Your task to perform on an android device: Open Reddit.com Image 0: 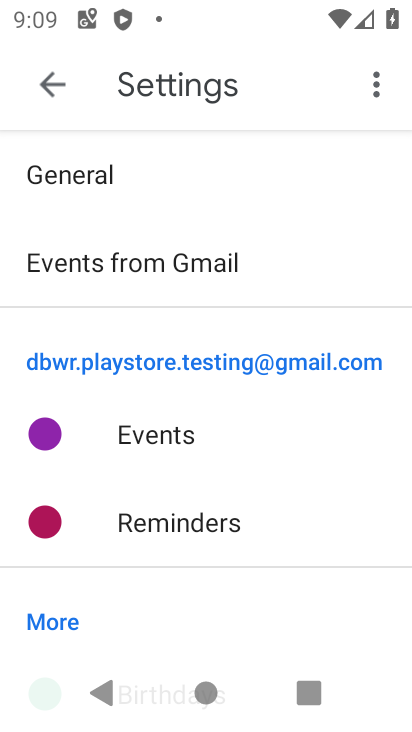
Step 0: press home button
Your task to perform on an android device: Open Reddit.com Image 1: 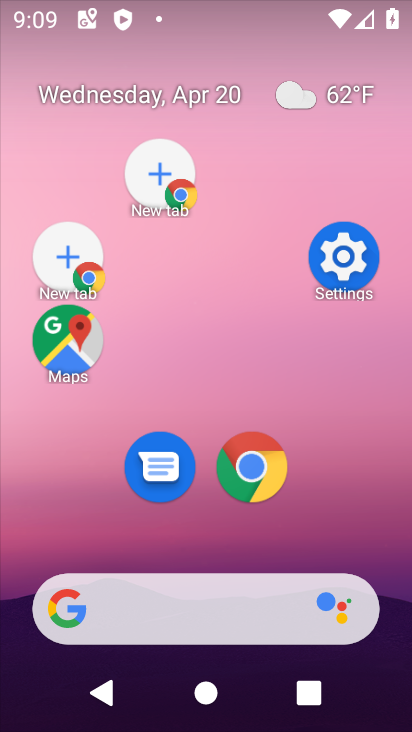
Step 1: drag from (264, 681) to (352, 25)
Your task to perform on an android device: Open Reddit.com Image 2: 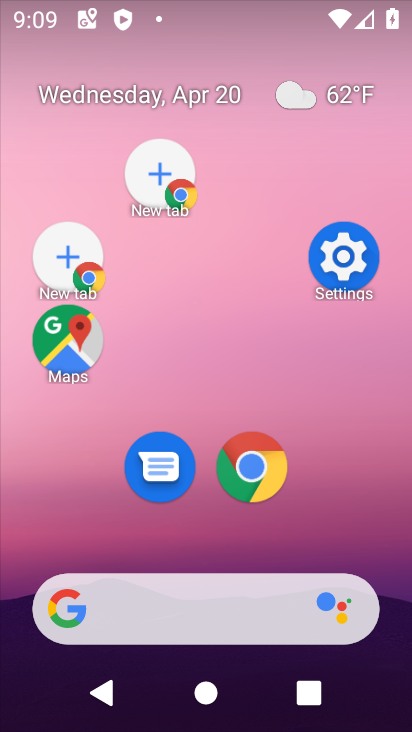
Step 2: drag from (311, 560) to (78, 27)
Your task to perform on an android device: Open Reddit.com Image 3: 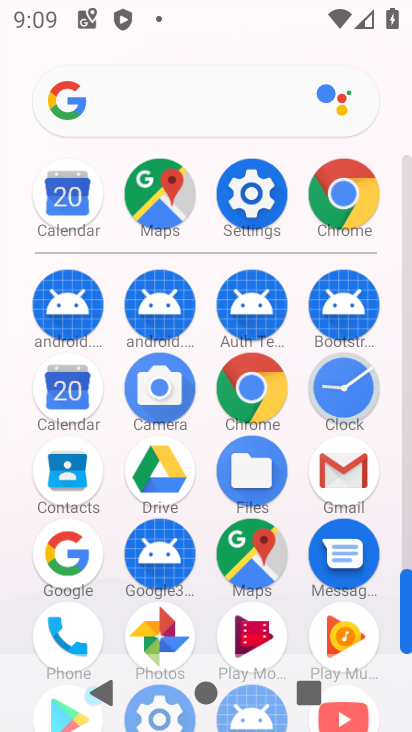
Step 3: click (332, 193)
Your task to perform on an android device: Open Reddit.com Image 4: 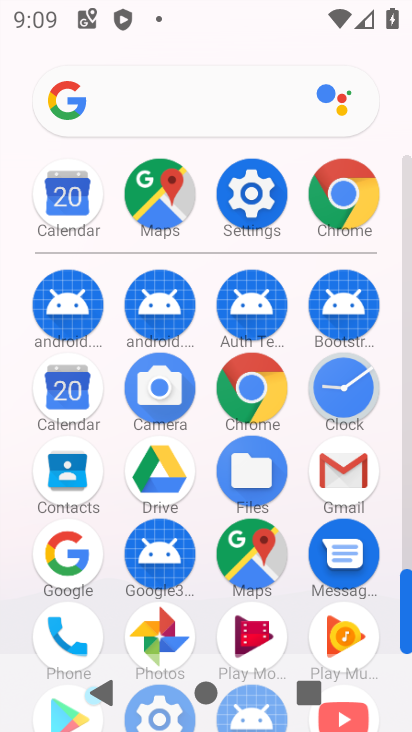
Step 4: click (332, 193)
Your task to perform on an android device: Open Reddit.com Image 5: 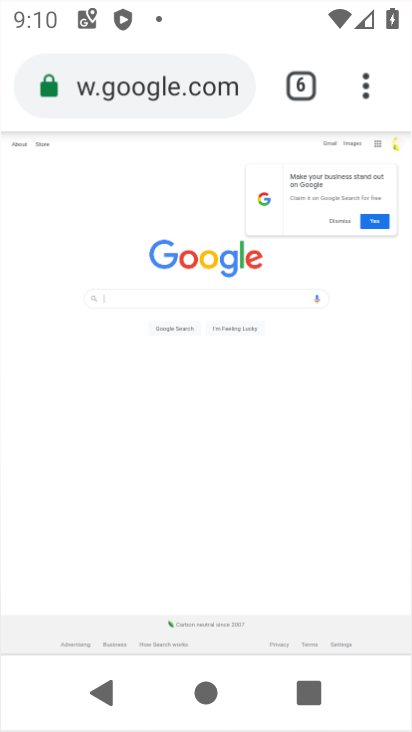
Step 5: click (342, 198)
Your task to perform on an android device: Open Reddit.com Image 6: 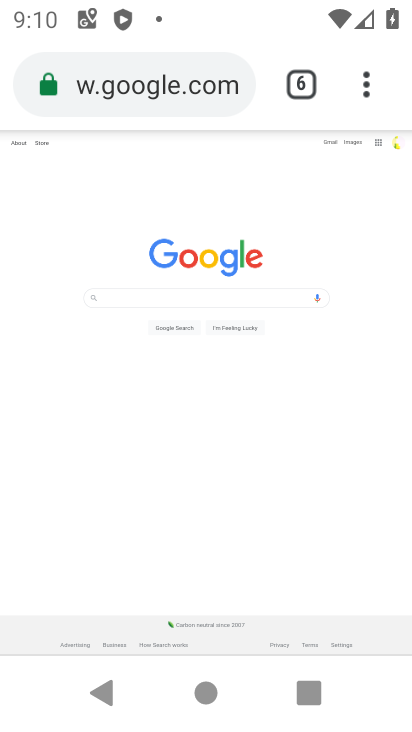
Step 6: click (363, 82)
Your task to perform on an android device: Open Reddit.com Image 7: 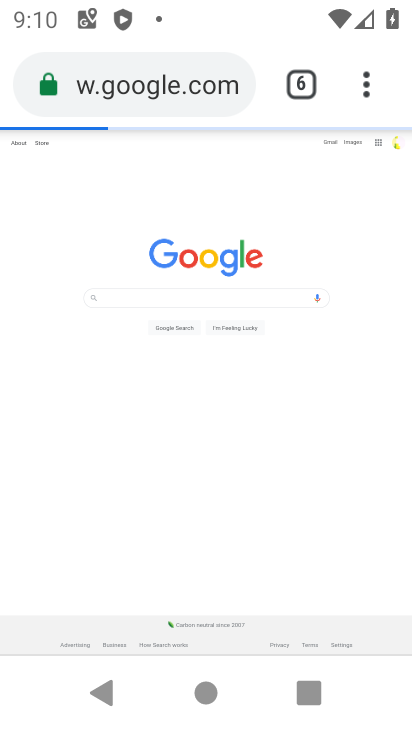
Step 7: click (364, 81)
Your task to perform on an android device: Open Reddit.com Image 8: 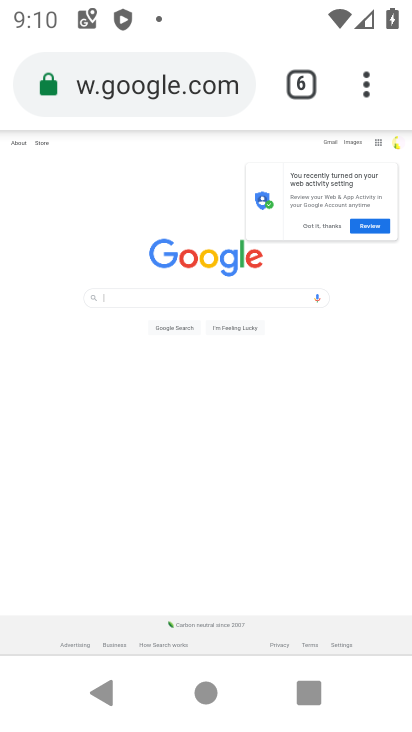
Step 8: click (368, 83)
Your task to perform on an android device: Open Reddit.com Image 9: 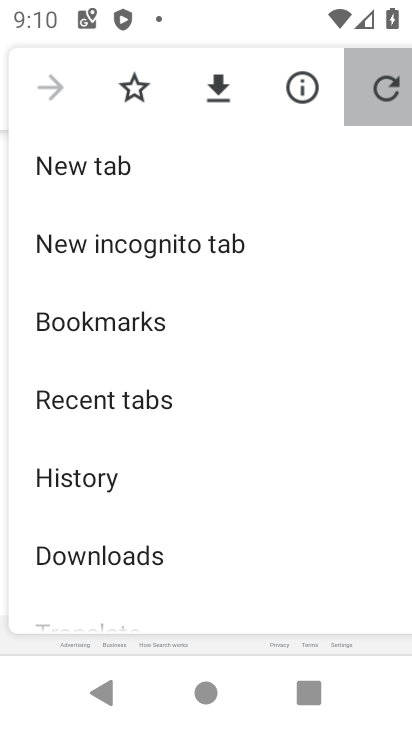
Step 9: click (368, 83)
Your task to perform on an android device: Open Reddit.com Image 10: 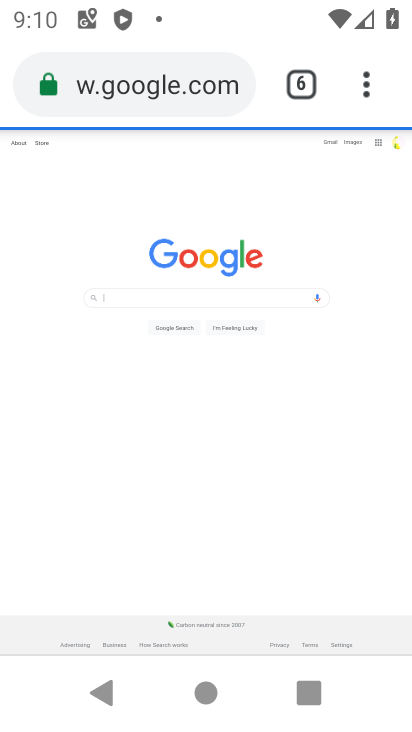
Step 10: click (368, 83)
Your task to perform on an android device: Open Reddit.com Image 11: 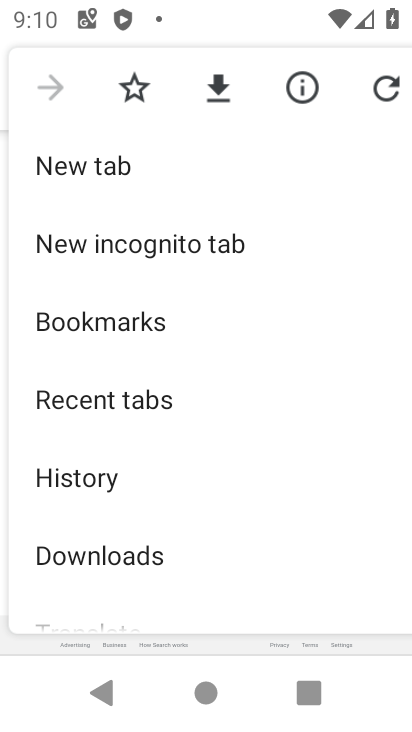
Step 11: click (370, 85)
Your task to perform on an android device: Open Reddit.com Image 12: 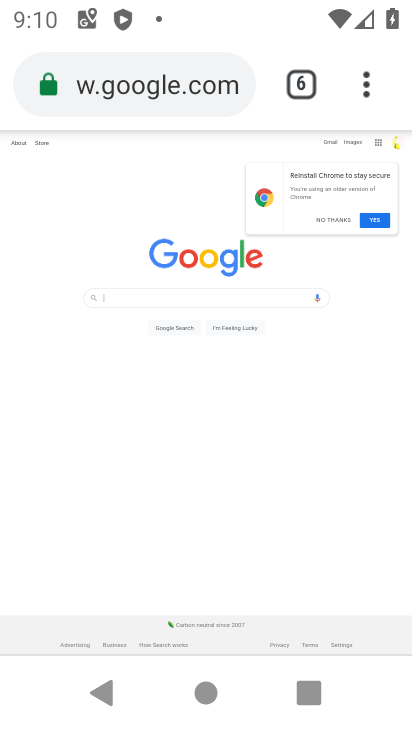
Step 12: click (359, 79)
Your task to perform on an android device: Open Reddit.com Image 13: 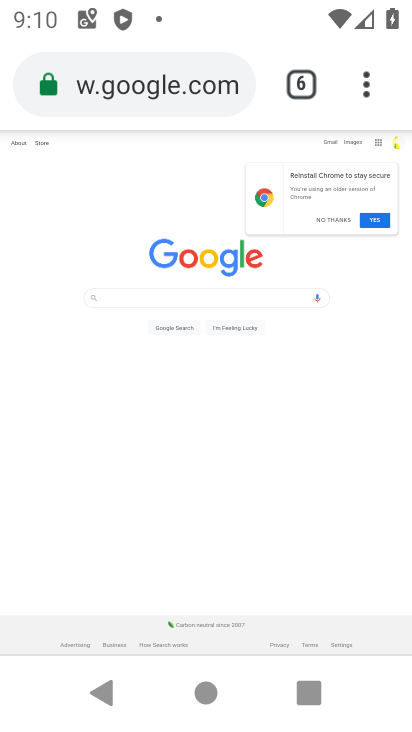
Step 13: click (362, 81)
Your task to perform on an android device: Open Reddit.com Image 14: 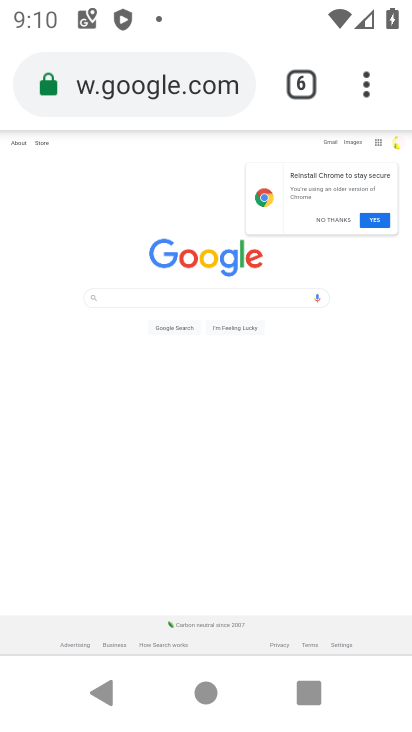
Step 14: click (352, 83)
Your task to perform on an android device: Open Reddit.com Image 15: 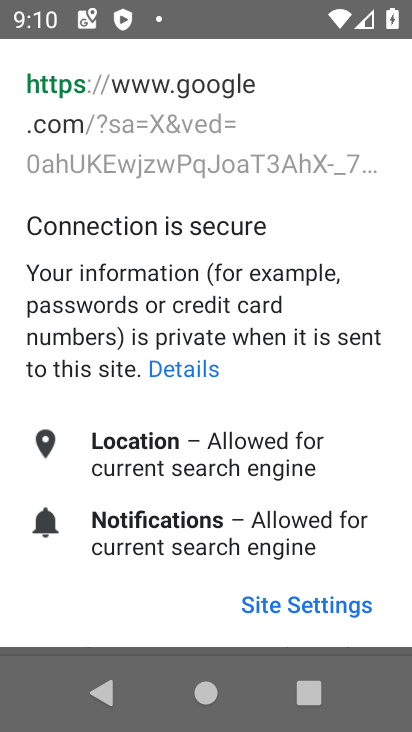
Step 15: click (322, 606)
Your task to perform on an android device: Open Reddit.com Image 16: 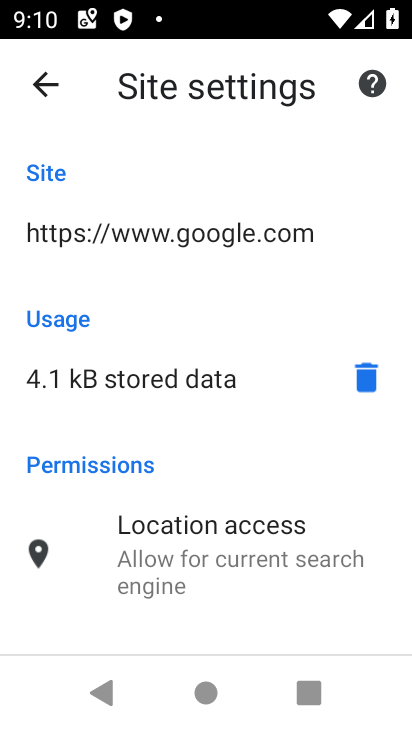
Step 16: click (38, 88)
Your task to perform on an android device: Open Reddit.com Image 17: 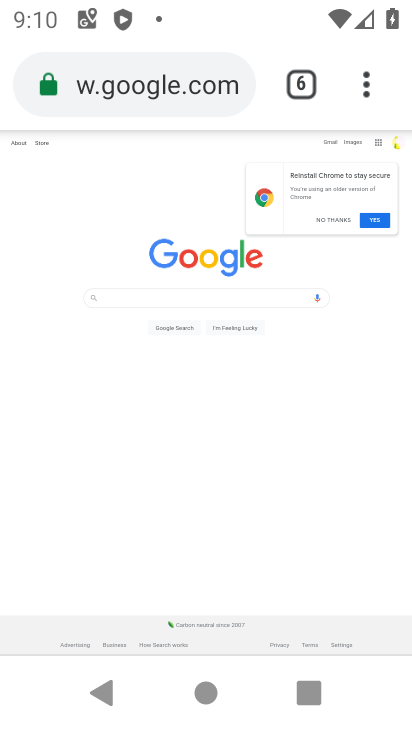
Step 17: click (362, 87)
Your task to perform on an android device: Open Reddit.com Image 18: 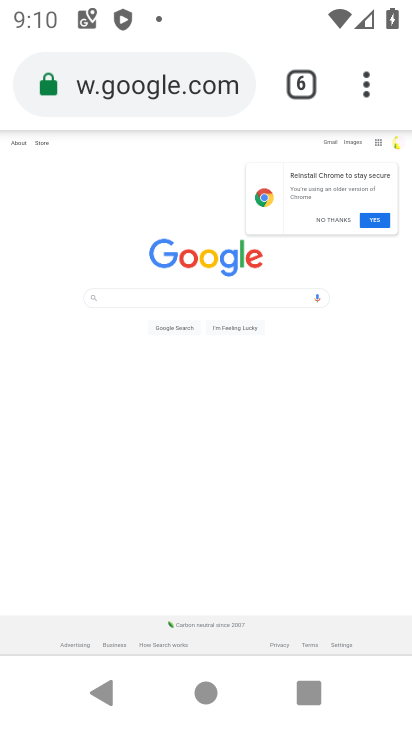
Step 18: click (361, 83)
Your task to perform on an android device: Open Reddit.com Image 19: 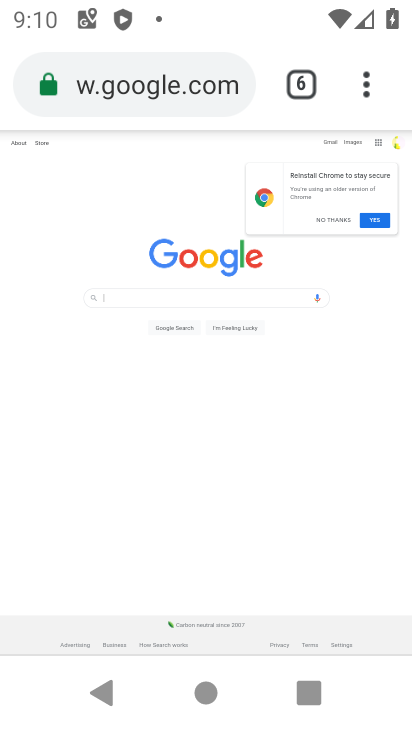
Step 19: drag from (363, 87) to (366, 141)
Your task to perform on an android device: Open Reddit.com Image 20: 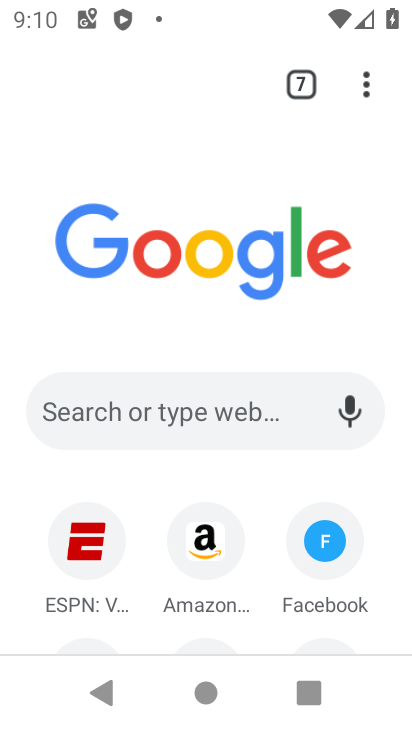
Step 20: click (358, 84)
Your task to perform on an android device: Open Reddit.com Image 21: 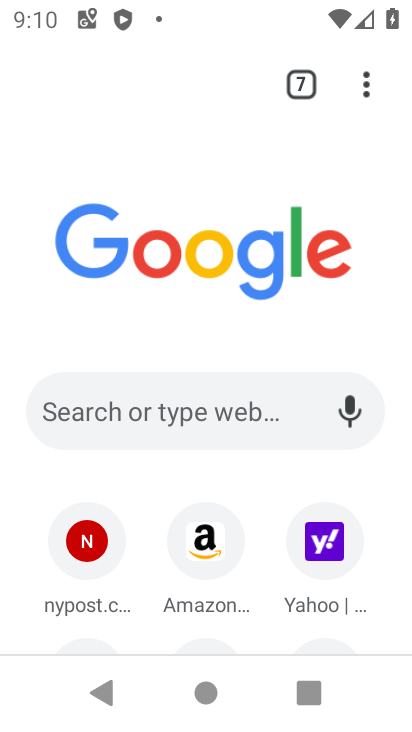
Step 21: click (366, 88)
Your task to perform on an android device: Open Reddit.com Image 22: 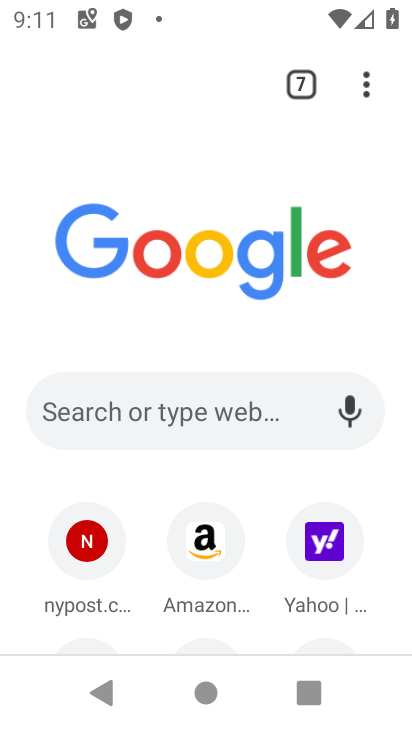
Step 22: click (364, 84)
Your task to perform on an android device: Open Reddit.com Image 23: 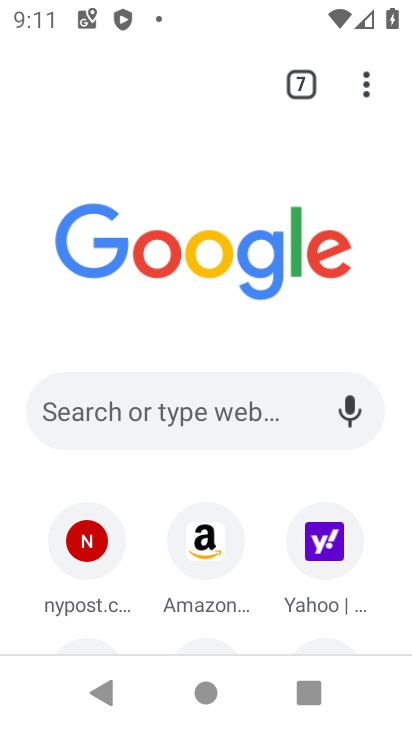
Step 23: click (364, 85)
Your task to perform on an android device: Open Reddit.com Image 24: 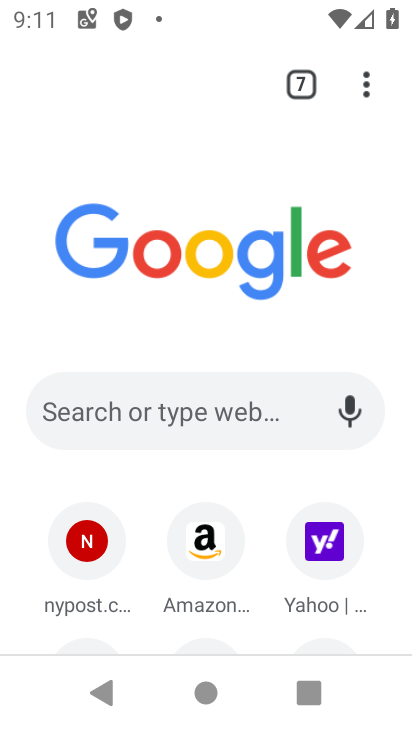
Step 24: click (352, 78)
Your task to perform on an android device: Open Reddit.com Image 25: 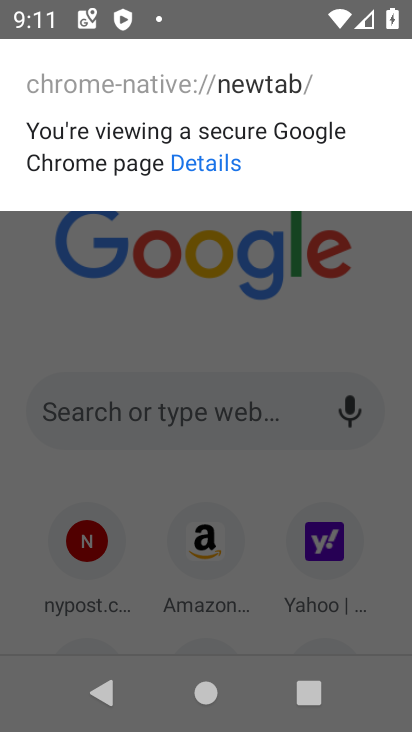
Step 25: click (277, 330)
Your task to perform on an android device: Open Reddit.com Image 26: 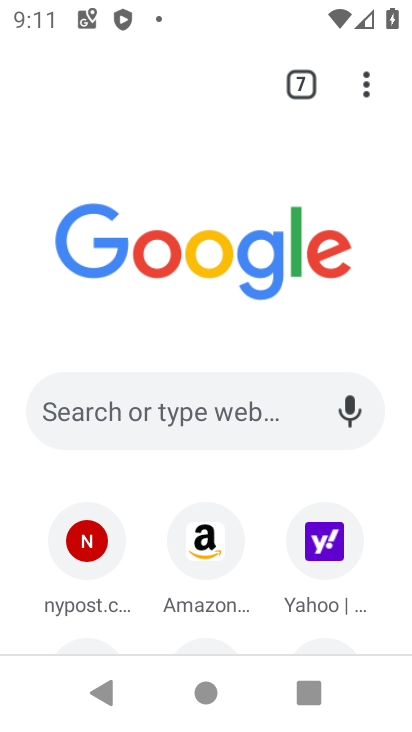
Step 26: click (363, 76)
Your task to perform on an android device: Open Reddit.com Image 27: 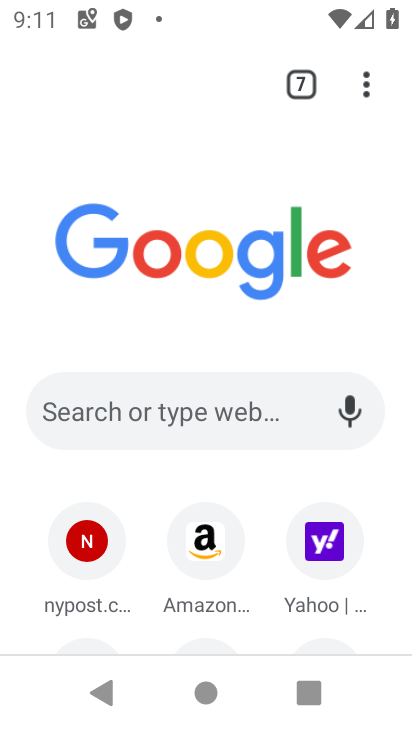
Step 27: drag from (363, 80) to (90, 159)
Your task to perform on an android device: Open Reddit.com Image 28: 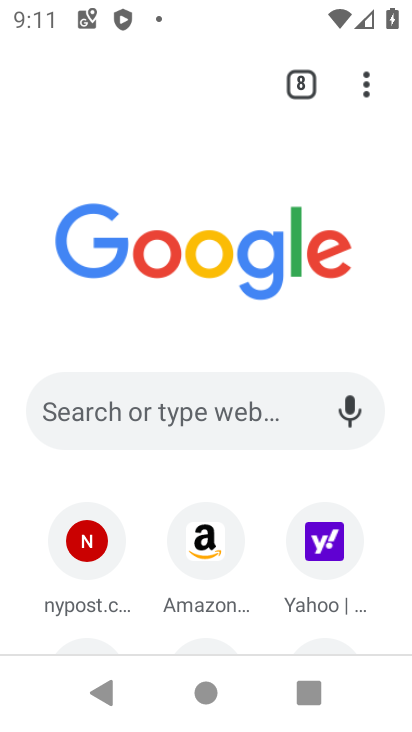
Step 28: click (90, 159)
Your task to perform on an android device: Open Reddit.com Image 29: 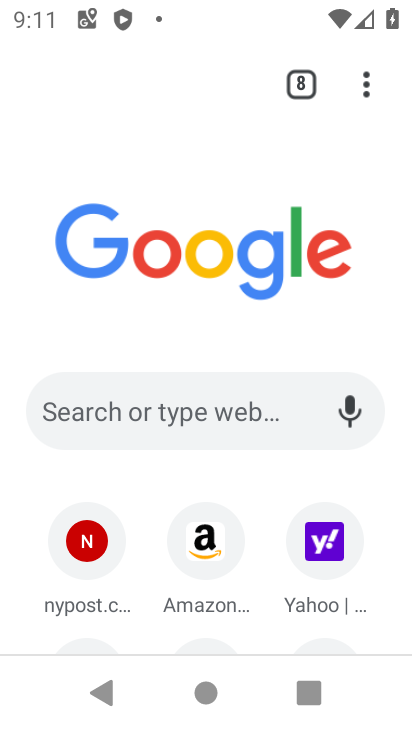
Step 29: click (368, 88)
Your task to perform on an android device: Open Reddit.com Image 30: 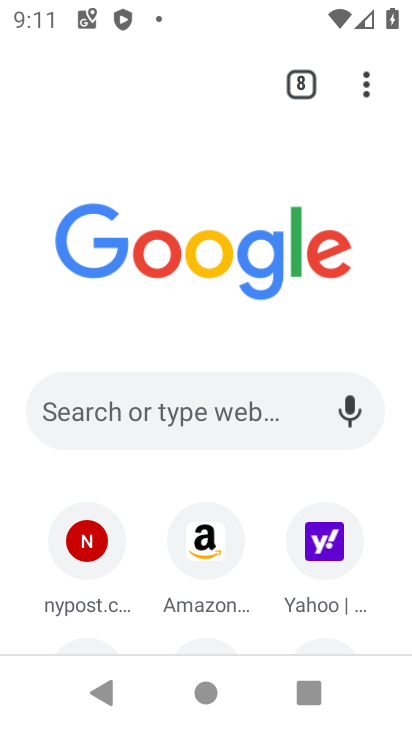
Step 30: drag from (368, 89) to (109, 155)
Your task to perform on an android device: Open Reddit.com Image 31: 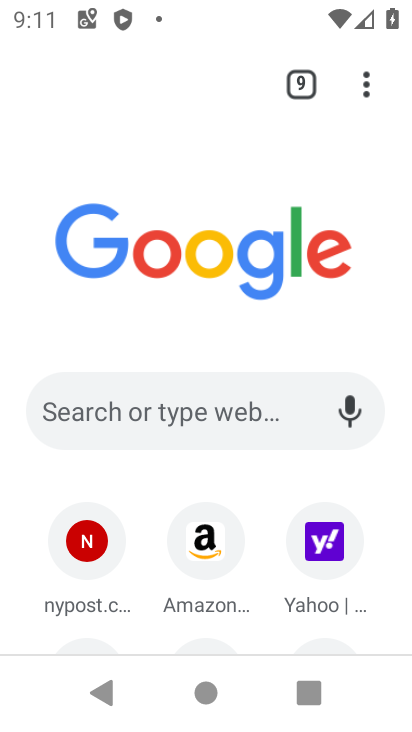
Step 31: click (131, 404)
Your task to perform on an android device: Open Reddit.com Image 32: 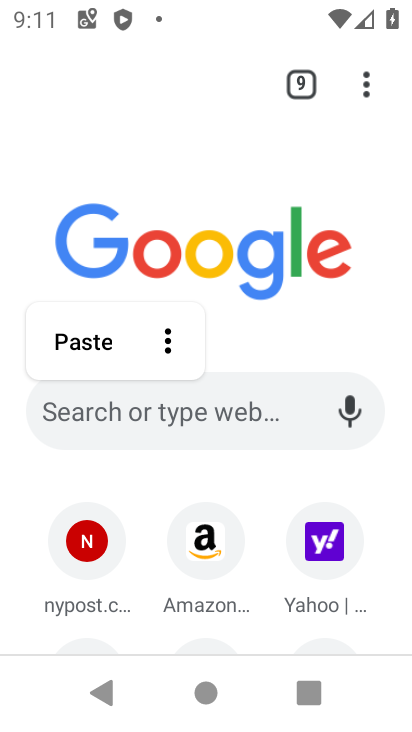
Step 32: click (99, 419)
Your task to perform on an android device: Open Reddit.com Image 33: 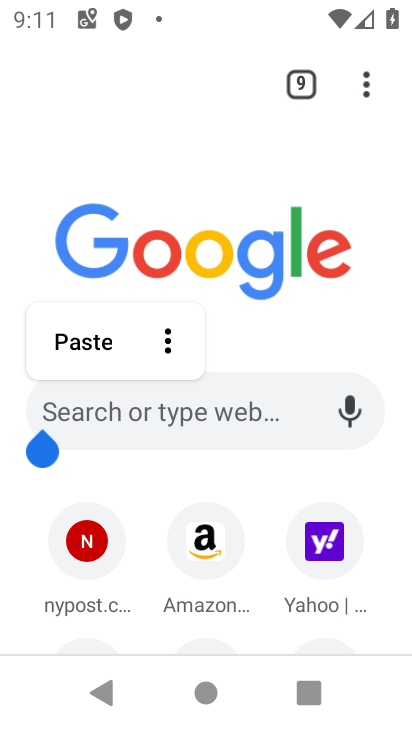
Step 33: click (84, 412)
Your task to perform on an android device: Open Reddit.com Image 34: 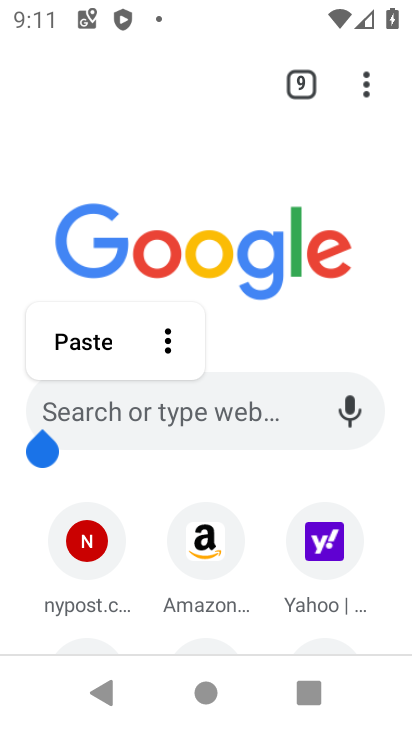
Step 34: click (86, 416)
Your task to perform on an android device: Open Reddit.com Image 35: 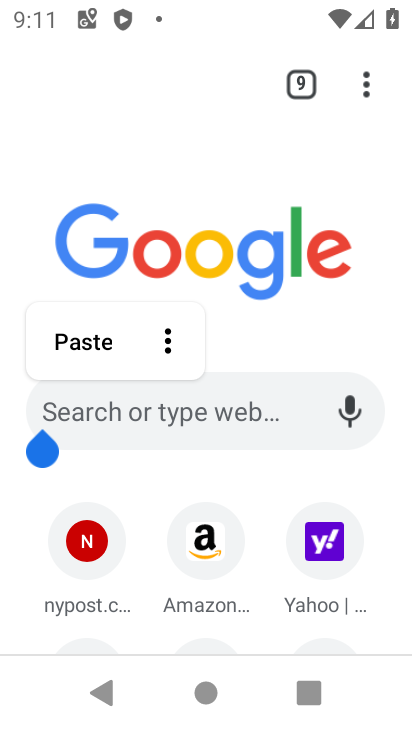
Step 35: click (88, 402)
Your task to perform on an android device: Open Reddit.com Image 36: 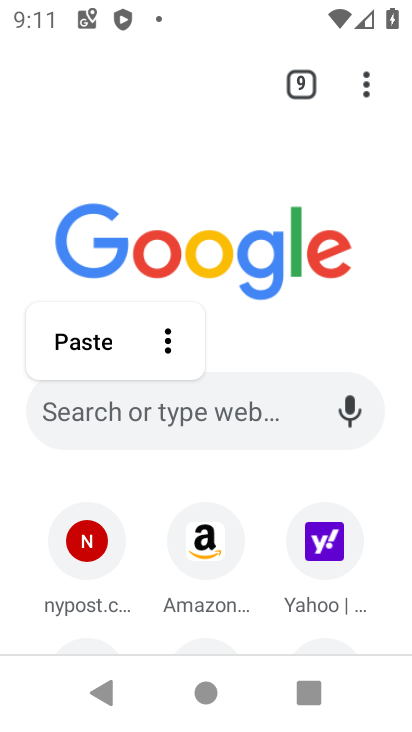
Step 36: click (101, 422)
Your task to perform on an android device: Open Reddit.com Image 37: 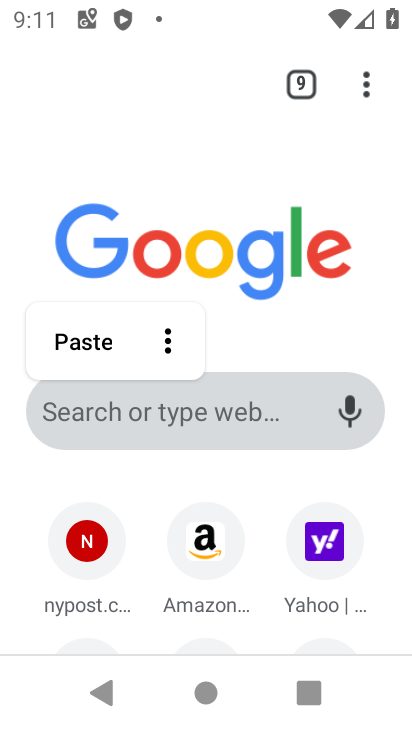
Step 37: click (101, 422)
Your task to perform on an android device: Open Reddit.com Image 38: 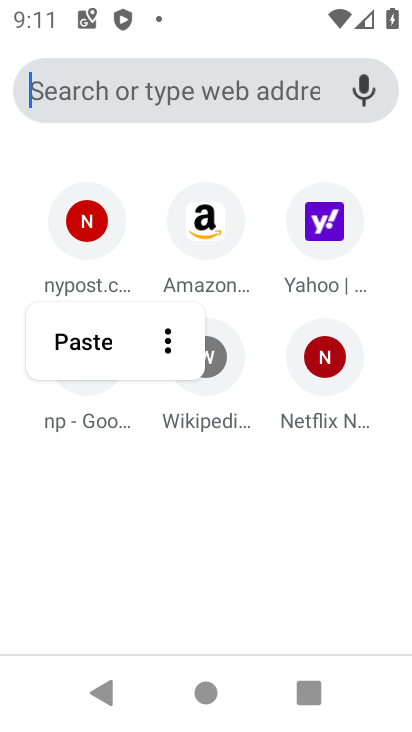
Step 38: click (100, 420)
Your task to perform on an android device: Open Reddit.com Image 39: 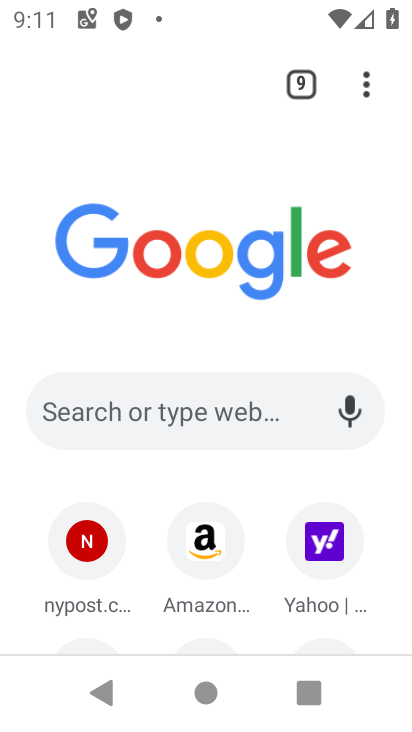
Step 39: click (88, 404)
Your task to perform on an android device: Open Reddit.com Image 40: 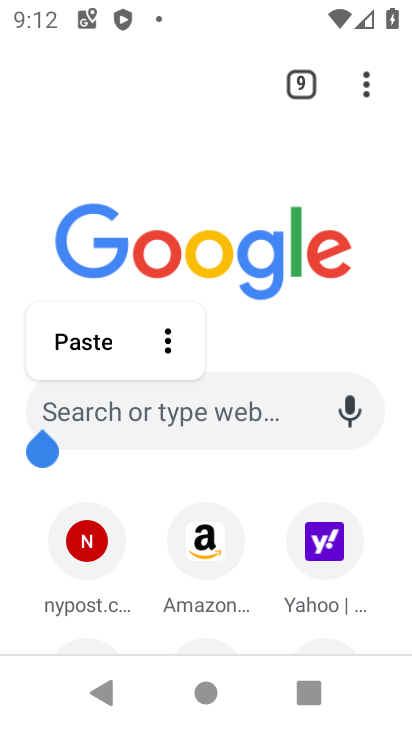
Step 40: click (93, 418)
Your task to perform on an android device: Open Reddit.com Image 41: 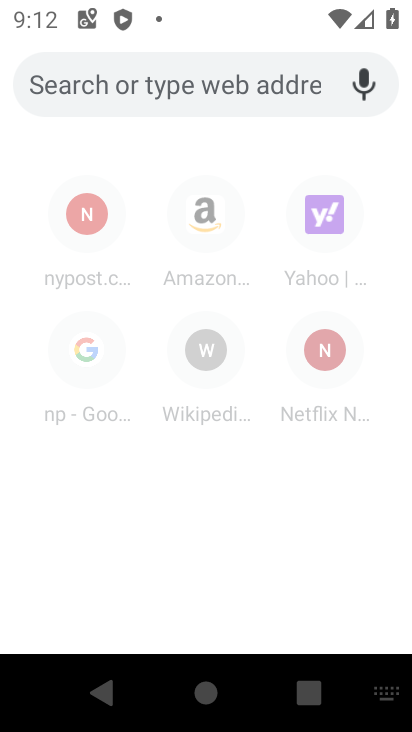
Step 41: type "www. "
Your task to perform on an android device: Open Reddit.com Image 42: 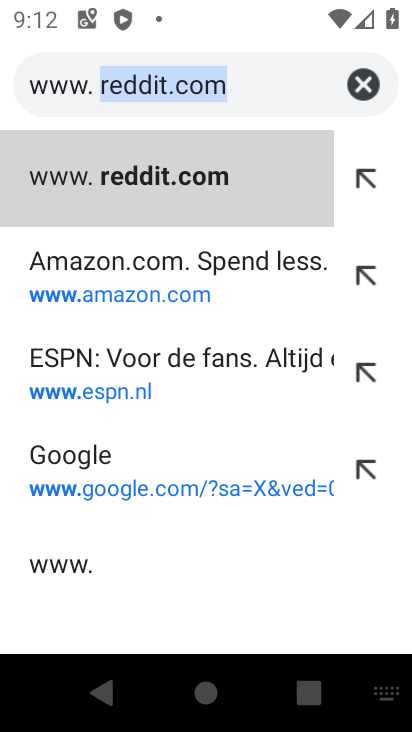
Step 42: click (126, 69)
Your task to perform on an android device: Open Reddit.com Image 43: 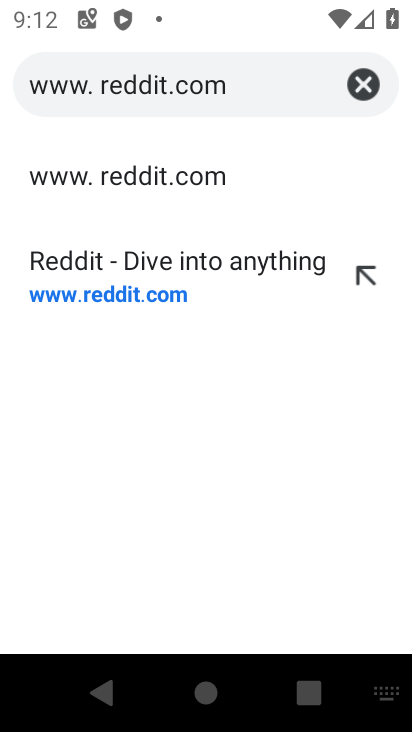
Step 43: click (245, 81)
Your task to perform on an android device: Open Reddit.com Image 44: 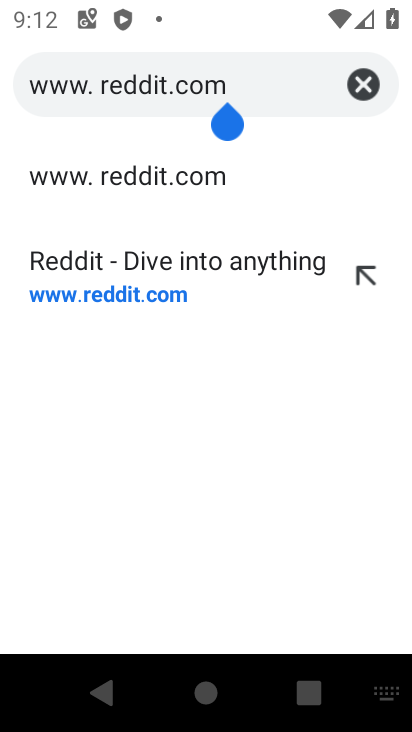
Step 44: click (153, 279)
Your task to perform on an android device: Open Reddit.com Image 45: 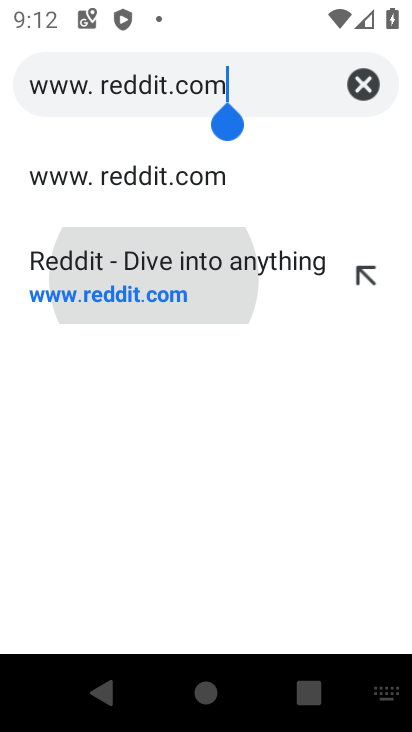
Step 45: click (155, 176)
Your task to perform on an android device: Open Reddit.com Image 46: 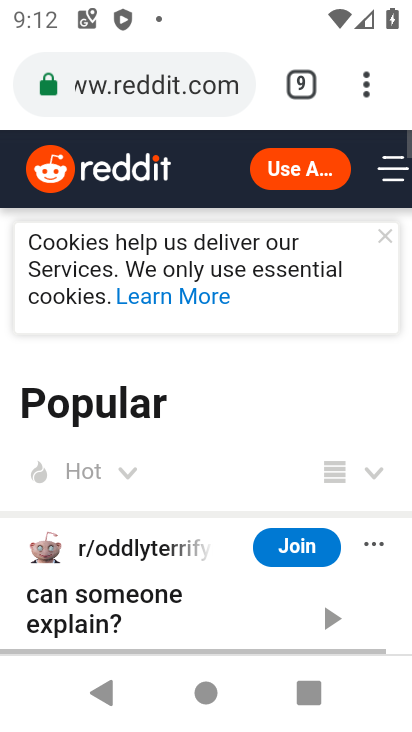
Step 46: task complete